Your task to perform on an android device: open the mobile data screen to see how much data has been used Image 0: 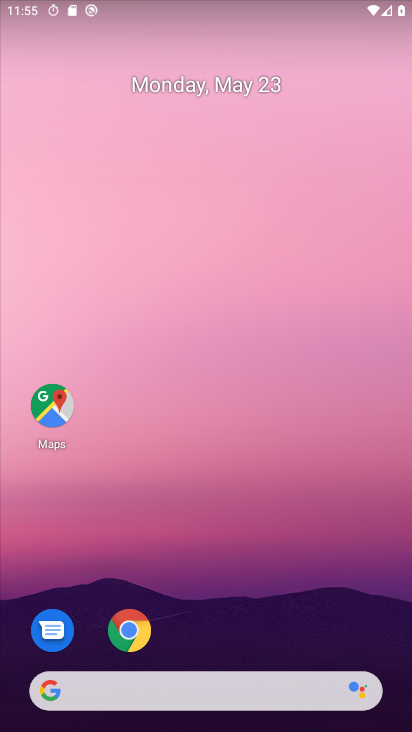
Step 0: drag from (219, 620) to (258, 1)
Your task to perform on an android device: open the mobile data screen to see how much data has been used Image 1: 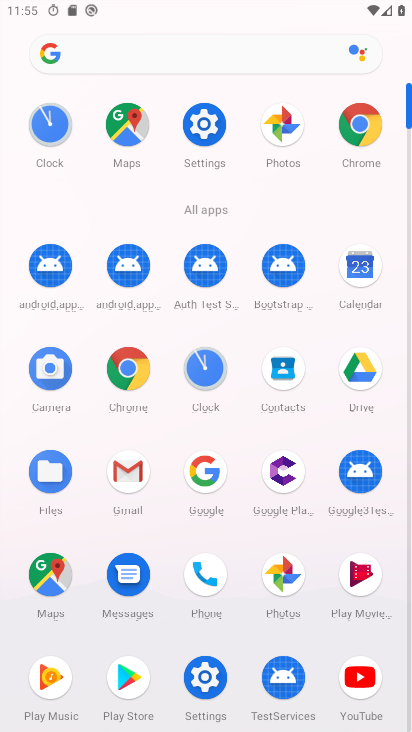
Step 1: click (197, 126)
Your task to perform on an android device: open the mobile data screen to see how much data has been used Image 2: 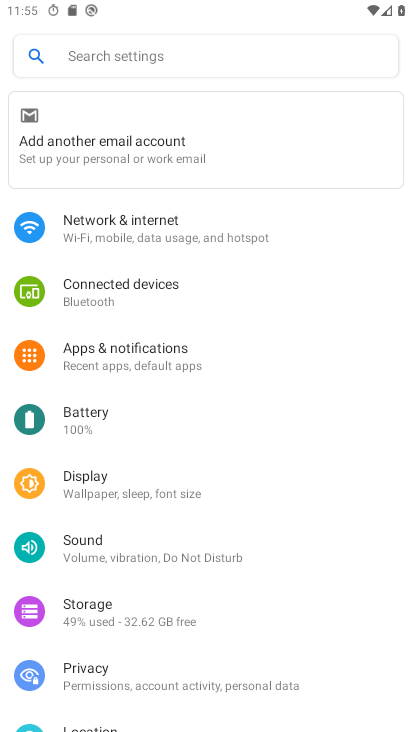
Step 2: click (140, 215)
Your task to perform on an android device: open the mobile data screen to see how much data has been used Image 3: 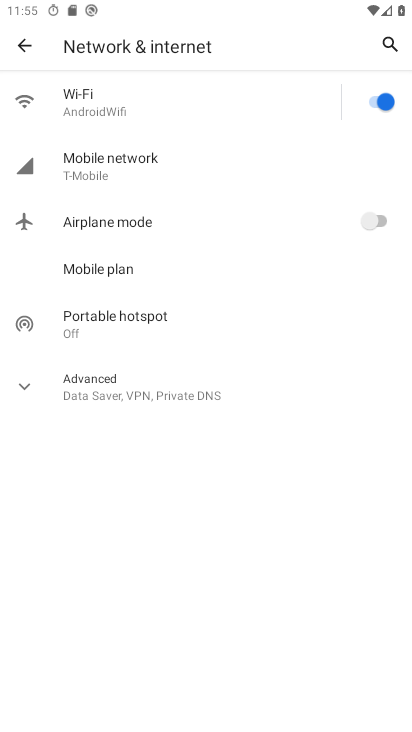
Step 3: click (133, 180)
Your task to perform on an android device: open the mobile data screen to see how much data has been used Image 4: 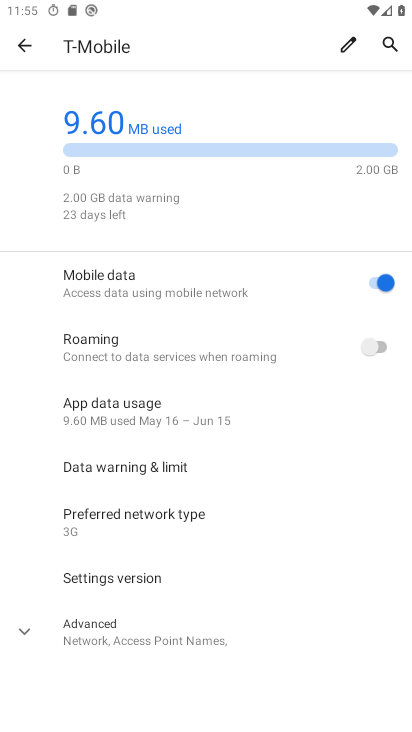
Step 4: click (167, 408)
Your task to perform on an android device: open the mobile data screen to see how much data has been used Image 5: 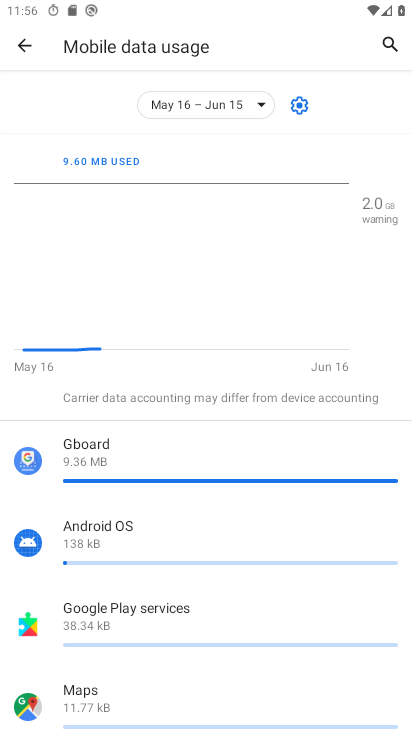
Step 5: task complete